Your task to perform on an android device: add a contact Image 0: 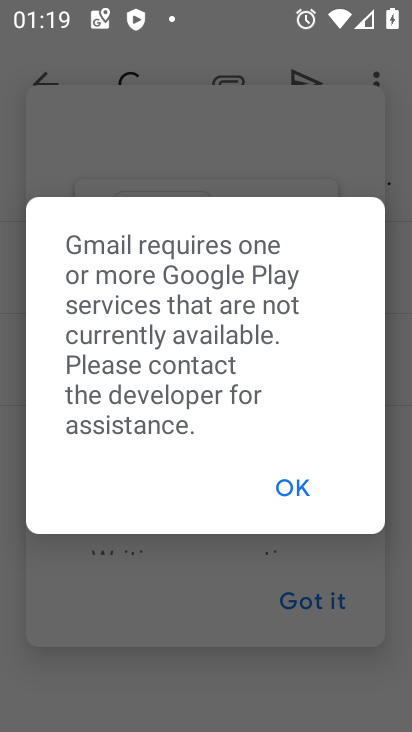
Step 0: press home button
Your task to perform on an android device: add a contact Image 1: 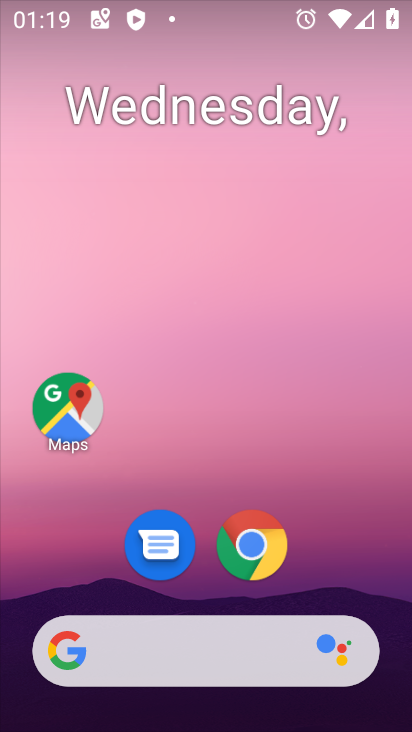
Step 1: drag from (328, 534) to (273, 114)
Your task to perform on an android device: add a contact Image 2: 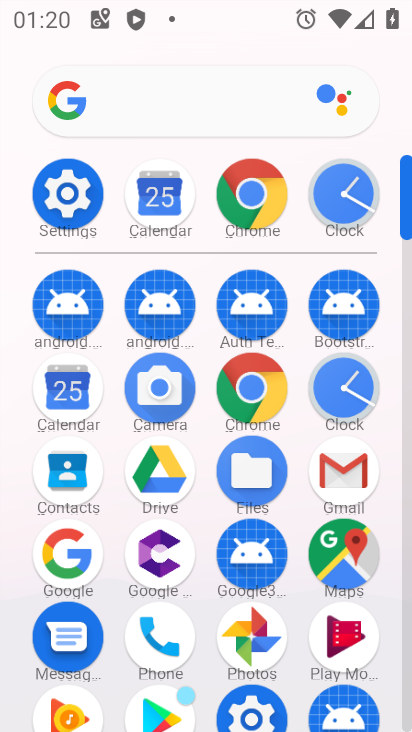
Step 2: click (63, 478)
Your task to perform on an android device: add a contact Image 3: 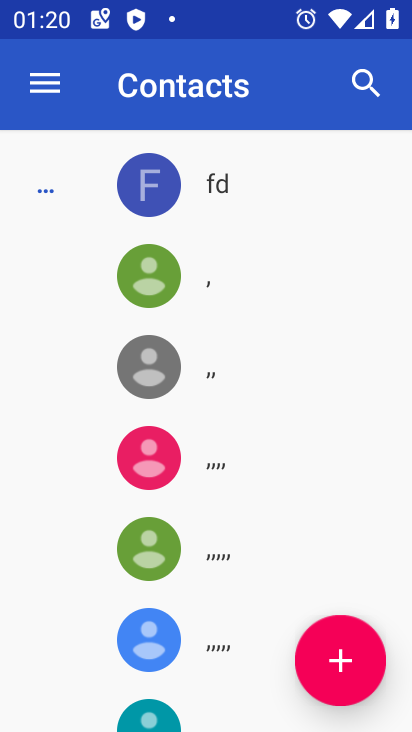
Step 3: click (378, 653)
Your task to perform on an android device: add a contact Image 4: 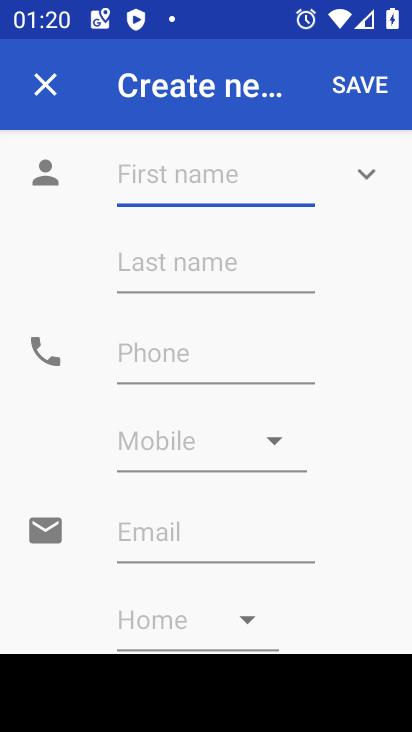
Step 4: type "visin"
Your task to perform on an android device: add a contact Image 5: 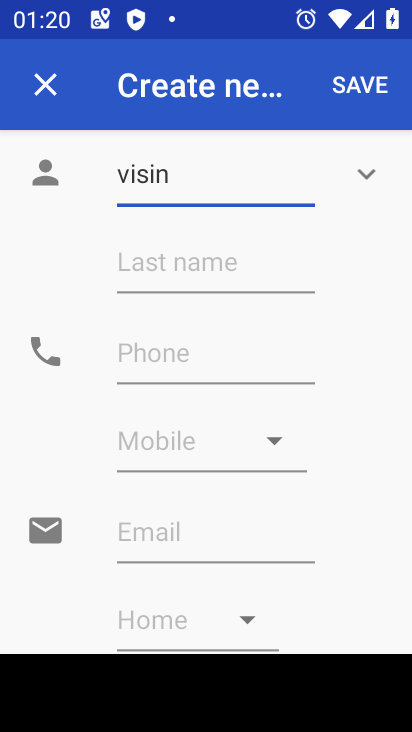
Step 5: click (350, 82)
Your task to perform on an android device: add a contact Image 6: 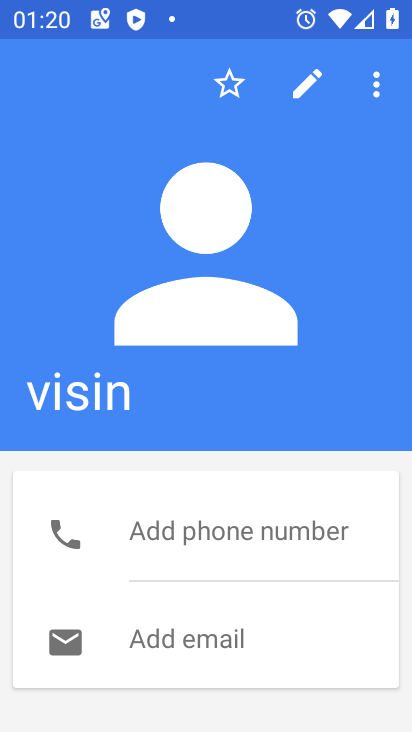
Step 6: task complete